Your task to perform on an android device: turn on improve location accuracy Image 0: 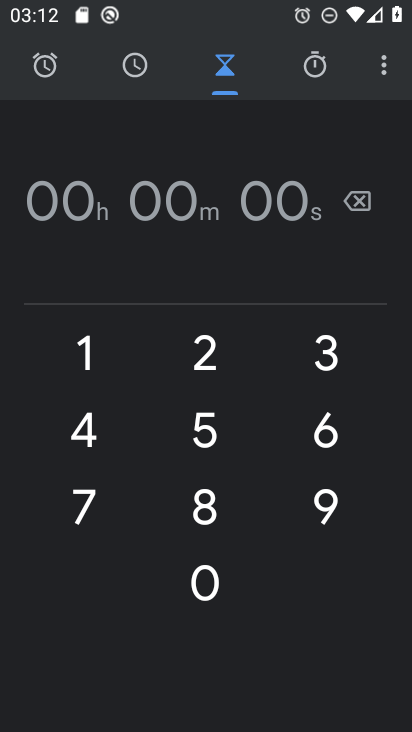
Step 0: press home button
Your task to perform on an android device: turn on improve location accuracy Image 1: 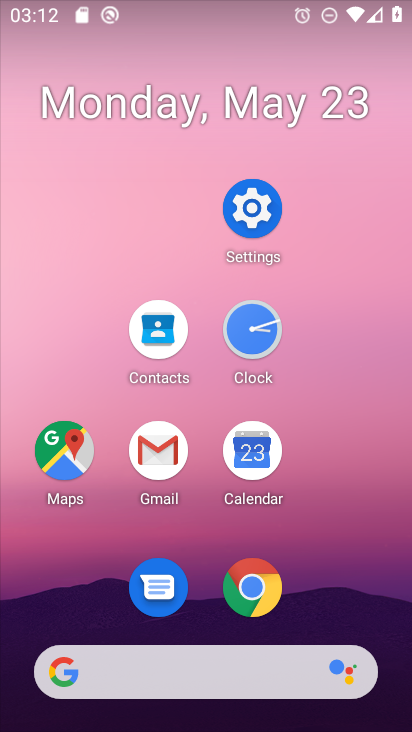
Step 1: click (277, 238)
Your task to perform on an android device: turn on improve location accuracy Image 2: 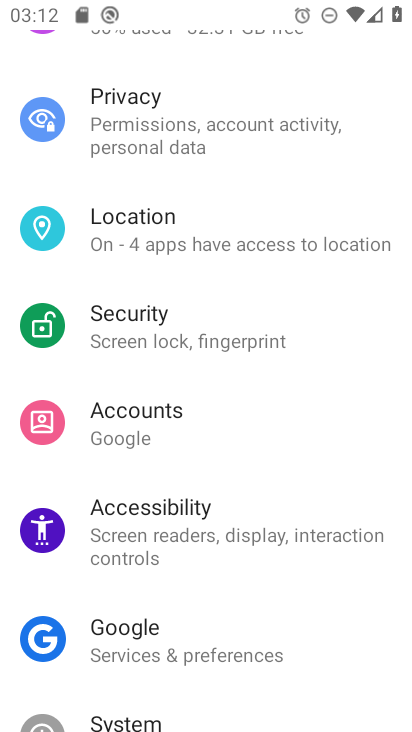
Step 2: drag from (259, 442) to (219, 724)
Your task to perform on an android device: turn on improve location accuracy Image 3: 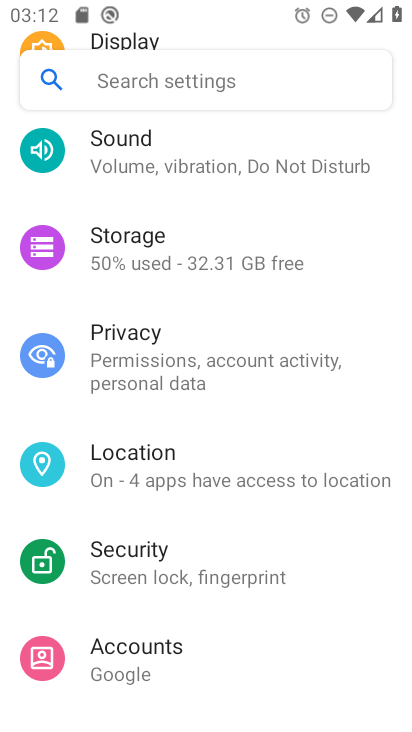
Step 3: click (201, 490)
Your task to perform on an android device: turn on improve location accuracy Image 4: 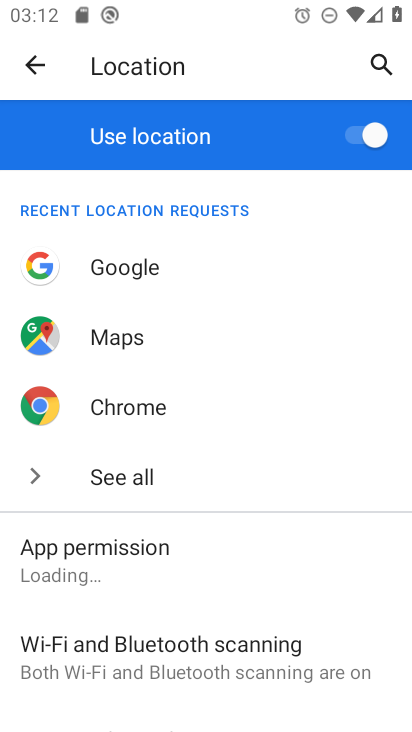
Step 4: drag from (304, 543) to (287, 223)
Your task to perform on an android device: turn on improve location accuracy Image 5: 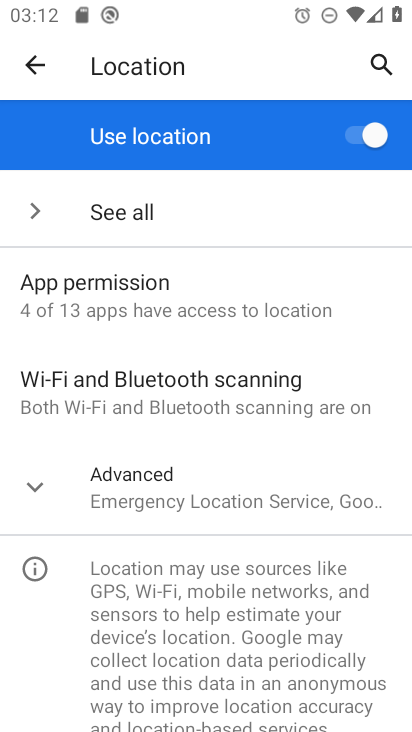
Step 5: click (229, 464)
Your task to perform on an android device: turn on improve location accuracy Image 6: 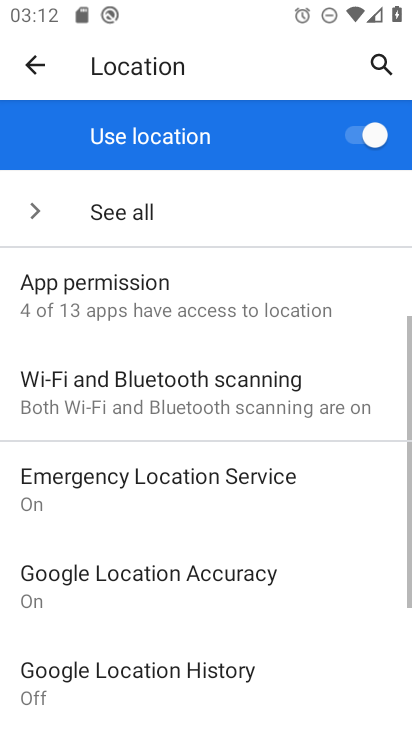
Step 6: drag from (211, 591) to (205, 464)
Your task to perform on an android device: turn on improve location accuracy Image 7: 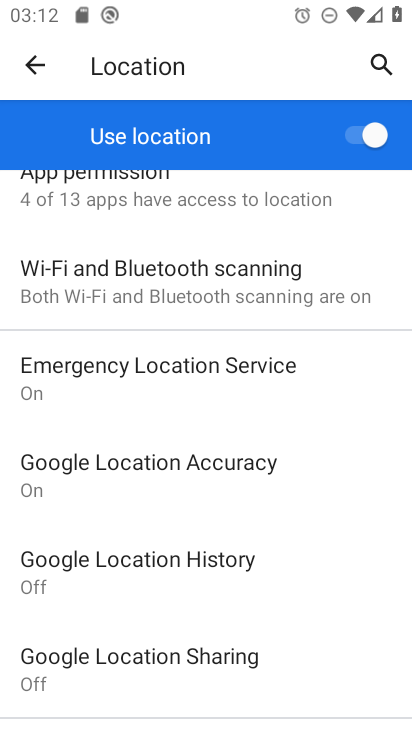
Step 7: click (219, 458)
Your task to perform on an android device: turn on improve location accuracy Image 8: 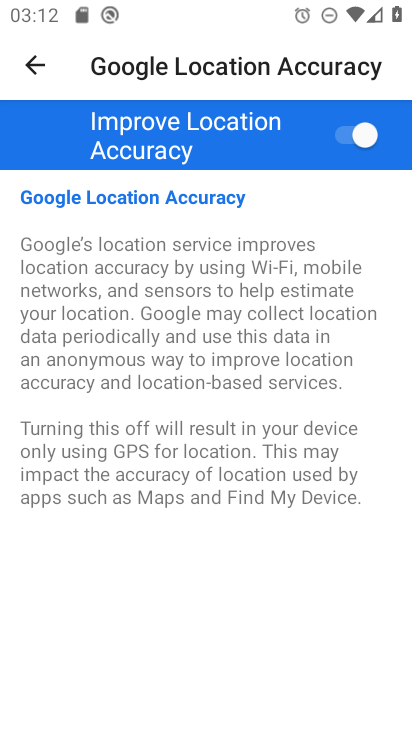
Step 8: task complete